Your task to perform on an android device: turn on showing notifications on the lock screen Image 0: 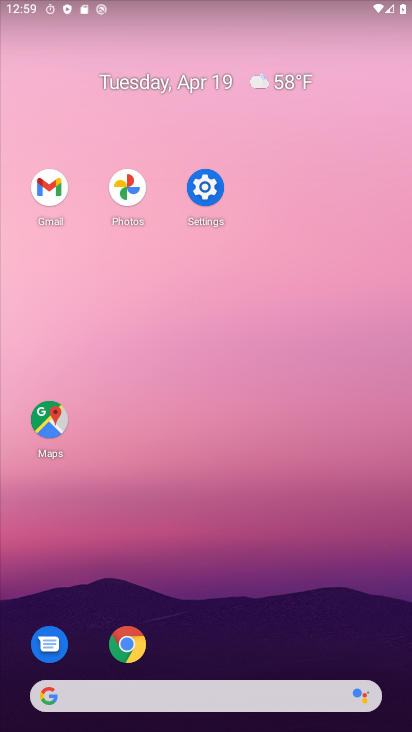
Step 0: drag from (271, 526) to (326, 199)
Your task to perform on an android device: turn on showing notifications on the lock screen Image 1: 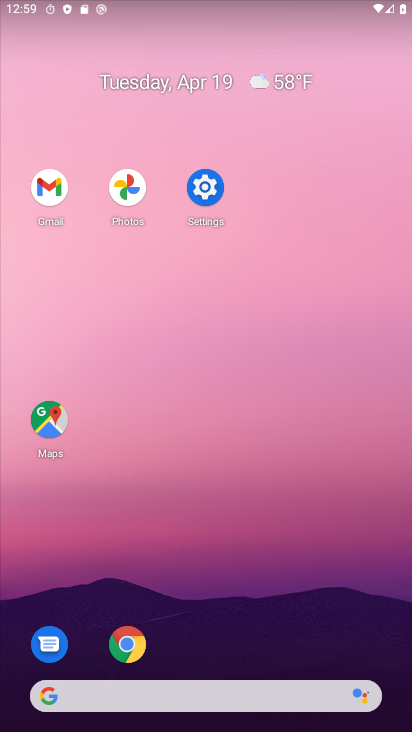
Step 1: drag from (239, 542) to (247, 129)
Your task to perform on an android device: turn on showing notifications on the lock screen Image 2: 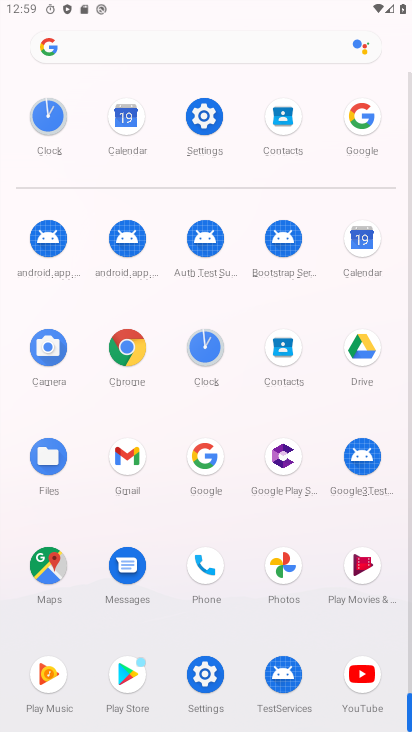
Step 2: click (210, 676)
Your task to perform on an android device: turn on showing notifications on the lock screen Image 3: 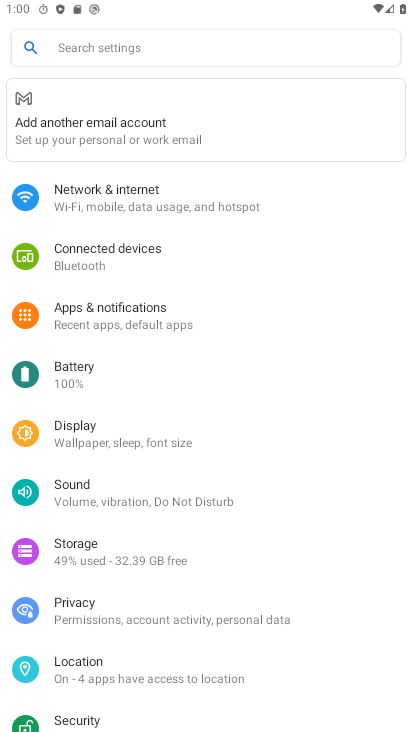
Step 3: click (134, 322)
Your task to perform on an android device: turn on showing notifications on the lock screen Image 4: 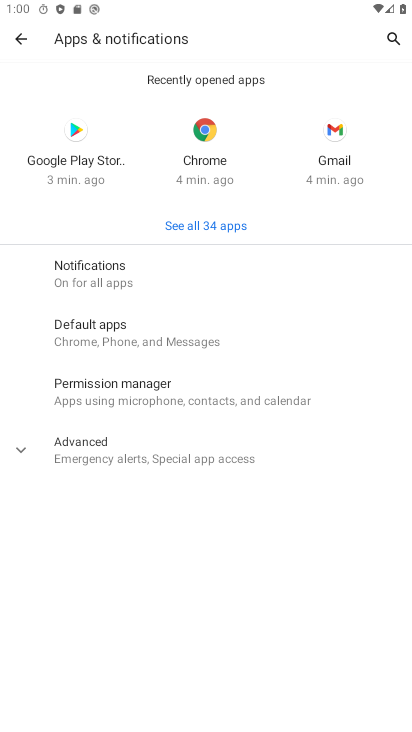
Step 4: click (130, 276)
Your task to perform on an android device: turn on showing notifications on the lock screen Image 5: 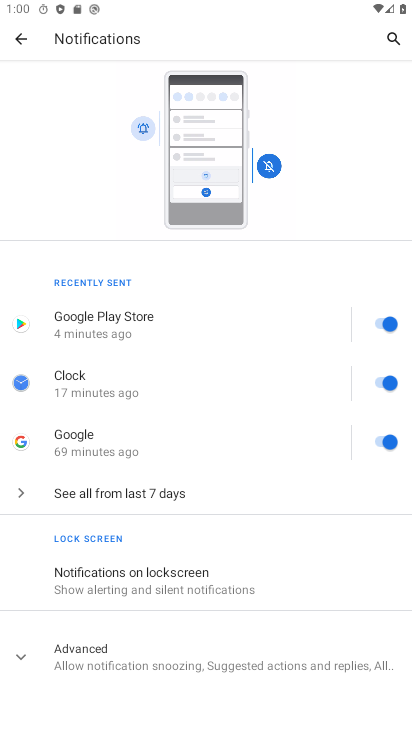
Step 5: click (146, 574)
Your task to perform on an android device: turn on showing notifications on the lock screen Image 6: 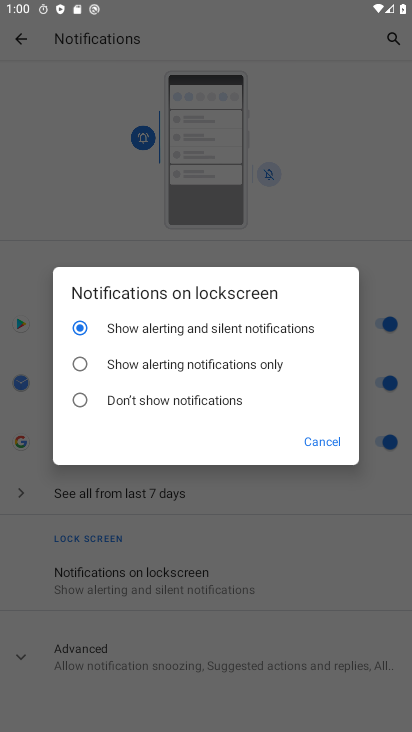
Step 6: task complete